Your task to perform on an android device: toggle priority inbox in the gmail app Image 0: 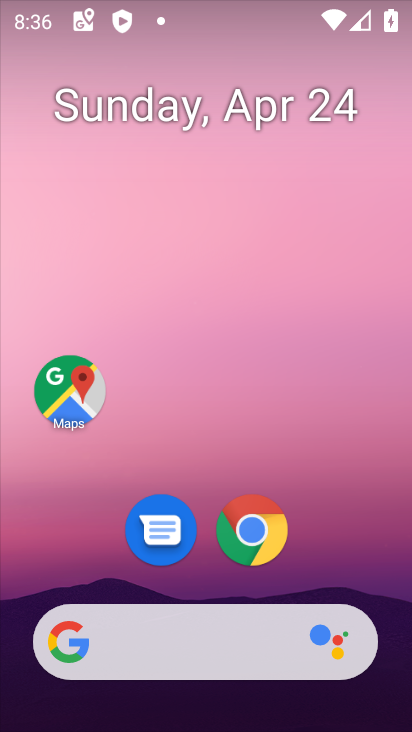
Step 0: drag from (212, 582) to (245, 35)
Your task to perform on an android device: toggle priority inbox in the gmail app Image 1: 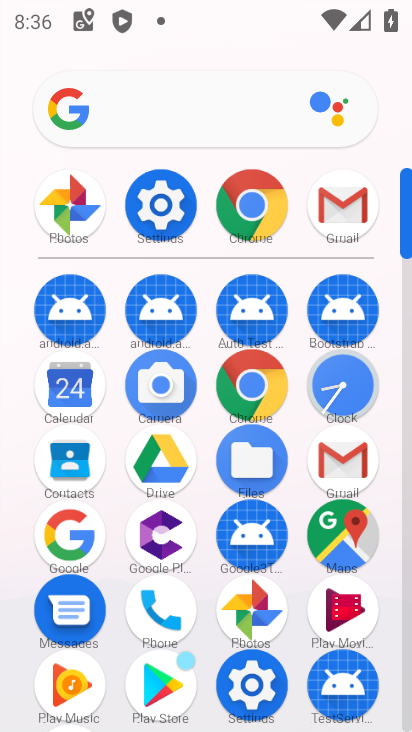
Step 1: click (333, 214)
Your task to perform on an android device: toggle priority inbox in the gmail app Image 2: 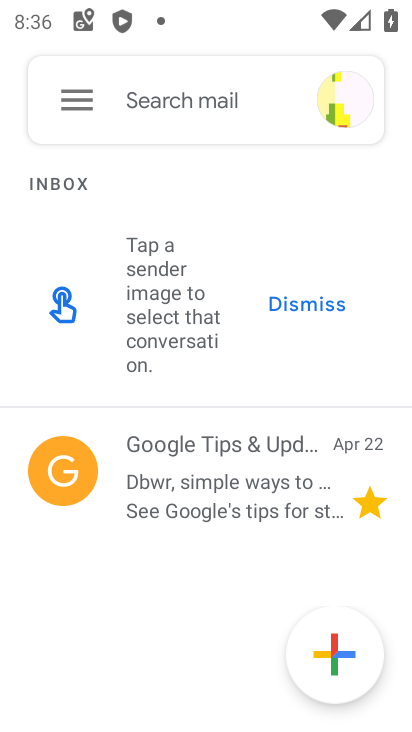
Step 2: click (60, 100)
Your task to perform on an android device: toggle priority inbox in the gmail app Image 3: 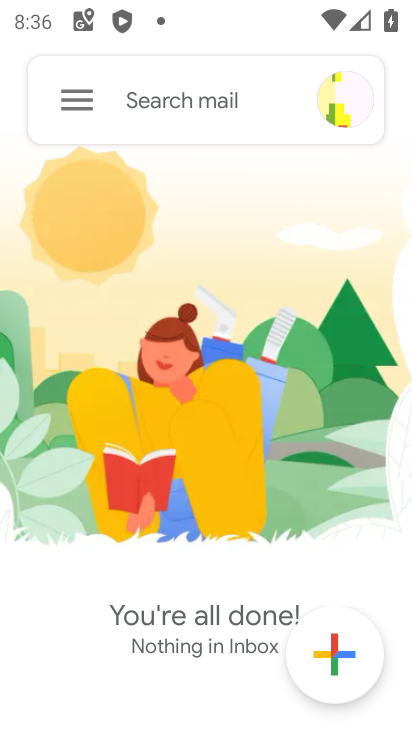
Step 3: click (74, 85)
Your task to perform on an android device: toggle priority inbox in the gmail app Image 4: 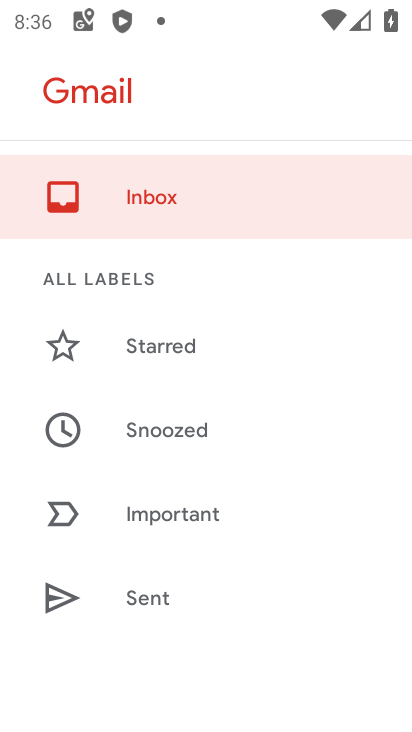
Step 4: drag from (164, 573) to (191, 159)
Your task to perform on an android device: toggle priority inbox in the gmail app Image 5: 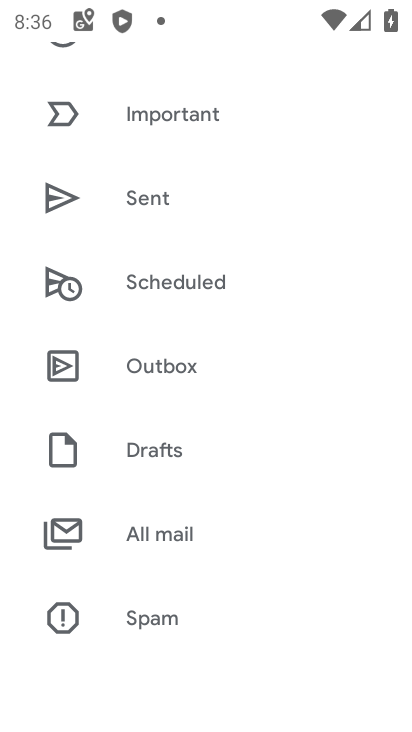
Step 5: drag from (79, 616) to (136, 185)
Your task to perform on an android device: toggle priority inbox in the gmail app Image 6: 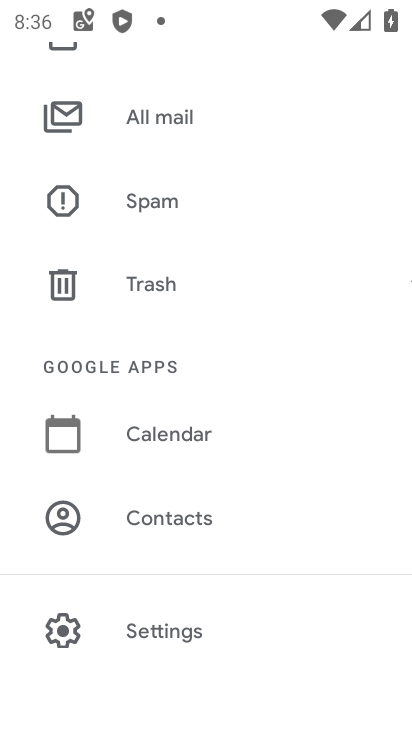
Step 6: click (157, 639)
Your task to perform on an android device: toggle priority inbox in the gmail app Image 7: 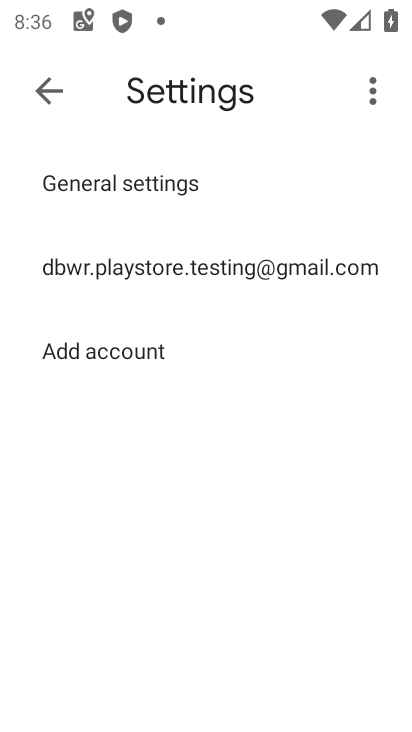
Step 7: click (239, 279)
Your task to perform on an android device: toggle priority inbox in the gmail app Image 8: 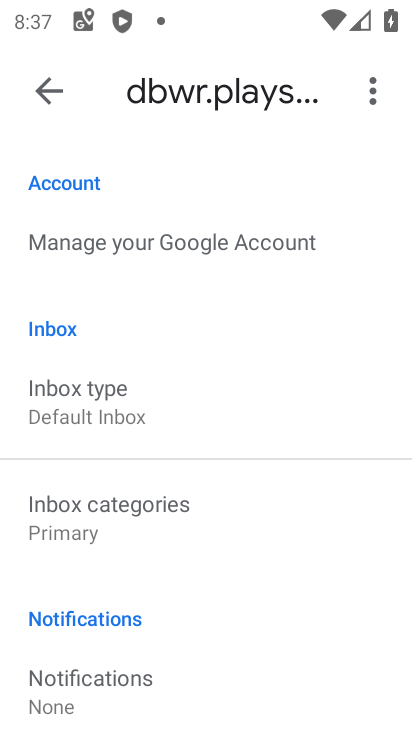
Step 8: click (140, 412)
Your task to perform on an android device: toggle priority inbox in the gmail app Image 9: 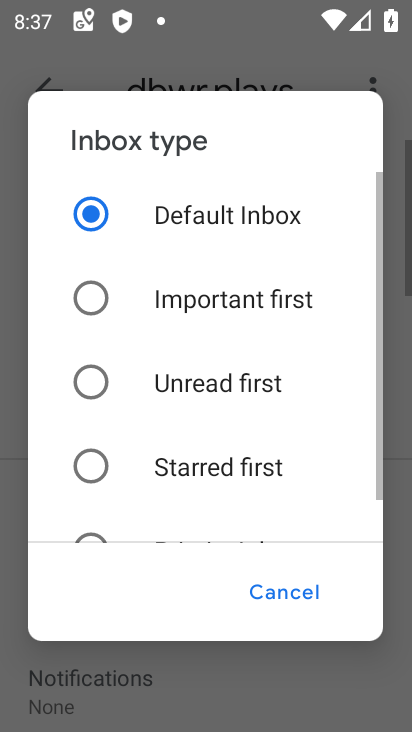
Step 9: click (140, 412)
Your task to perform on an android device: toggle priority inbox in the gmail app Image 10: 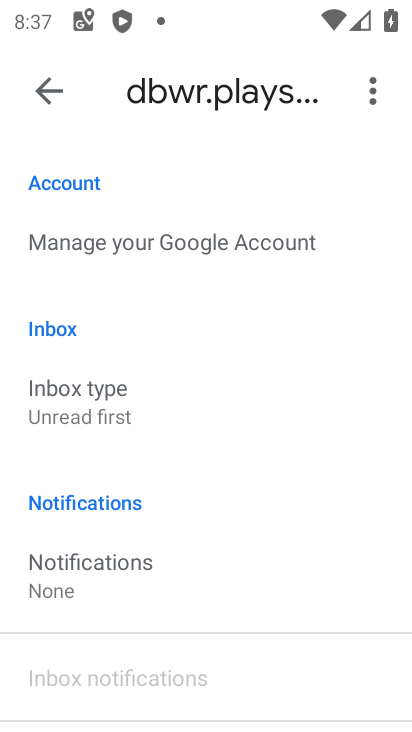
Step 10: task complete